Your task to perform on an android device: turn on priority inbox in the gmail app Image 0: 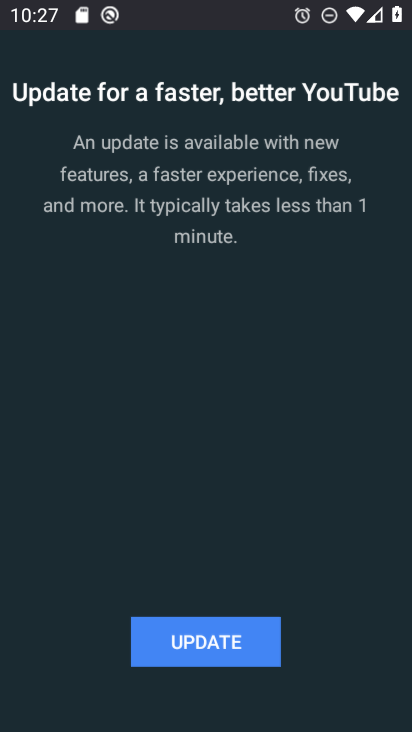
Step 0: press home button
Your task to perform on an android device: turn on priority inbox in the gmail app Image 1: 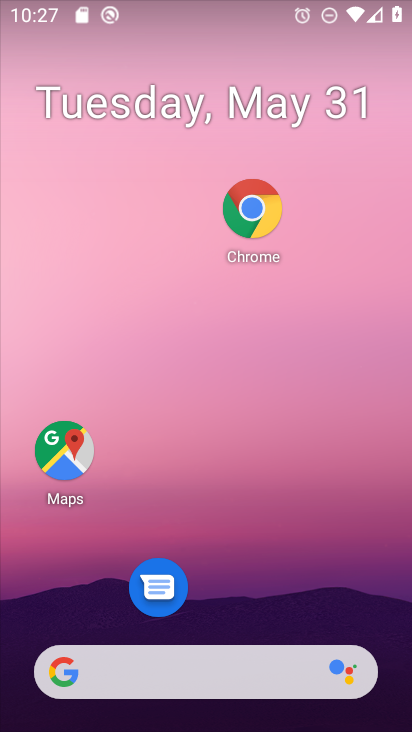
Step 1: drag from (227, 627) to (268, 86)
Your task to perform on an android device: turn on priority inbox in the gmail app Image 2: 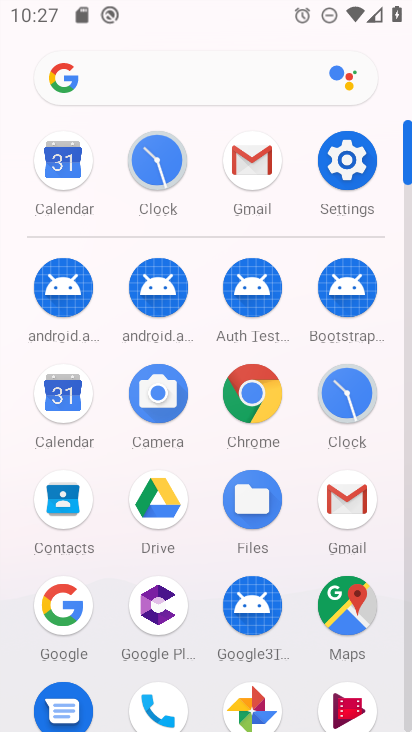
Step 2: click (344, 493)
Your task to perform on an android device: turn on priority inbox in the gmail app Image 3: 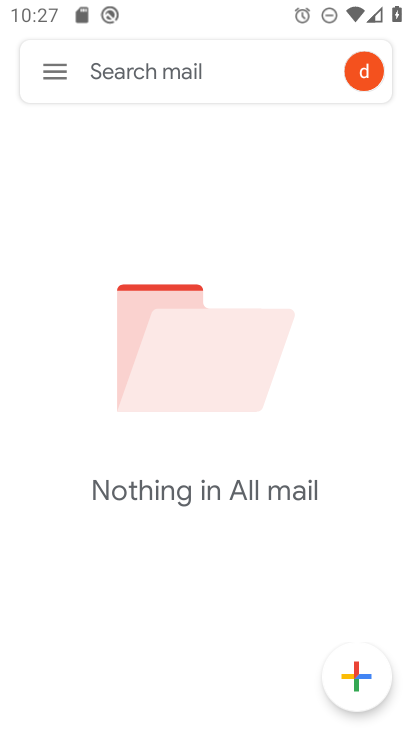
Step 3: click (54, 63)
Your task to perform on an android device: turn on priority inbox in the gmail app Image 4: 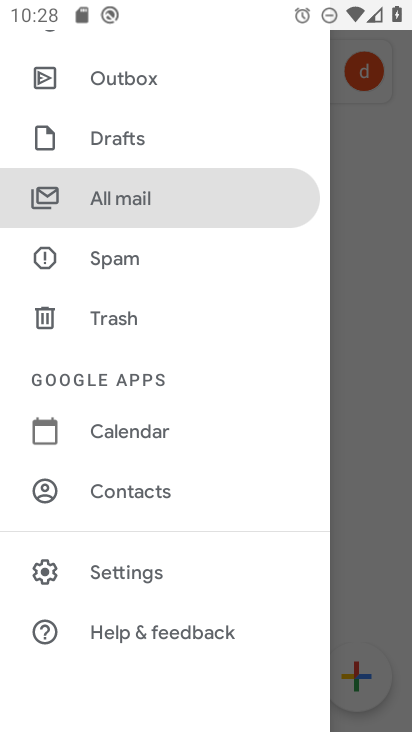
Step 4: click (116, 569)
Your task to perform on an android device: turn on priority inbox in the gmail app Image 5: 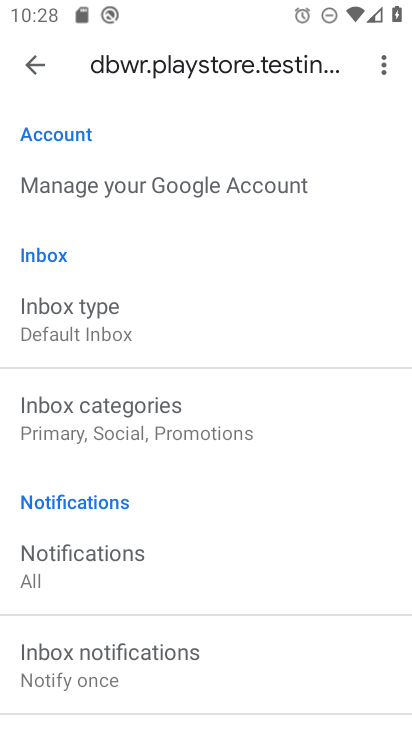
Step 5: click (111, 313)
Your task to perform on an android device: turn on priority inbox in the gmail app Image 6: 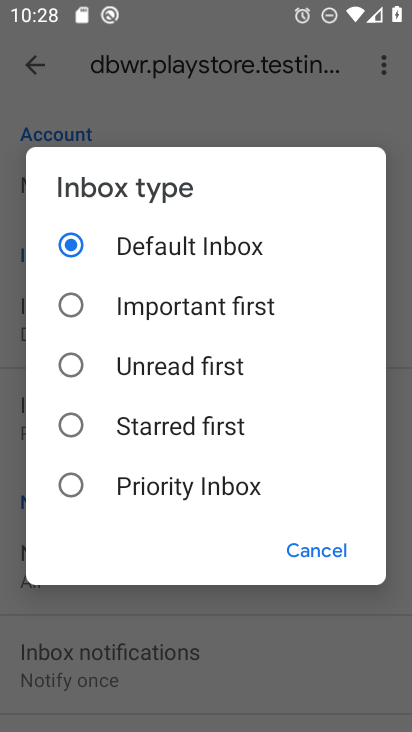
Step 6: click (67, 485)
Your task to perform on an android device: turn on priority inbox in the gmail app Image 7: 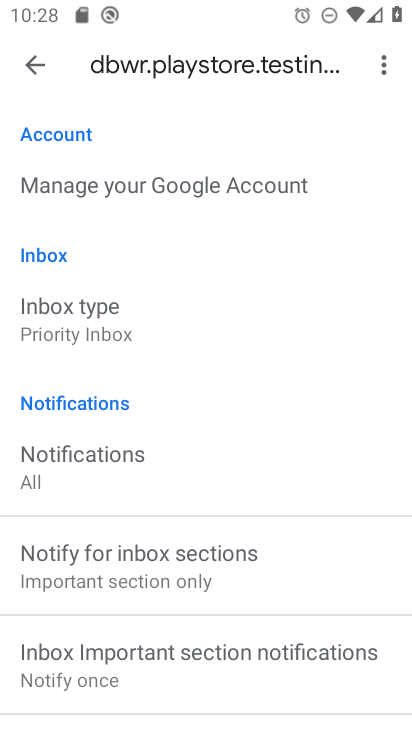
Step 7: task complete